Your task to perform on an android device: install app "Cash App" Image 0: 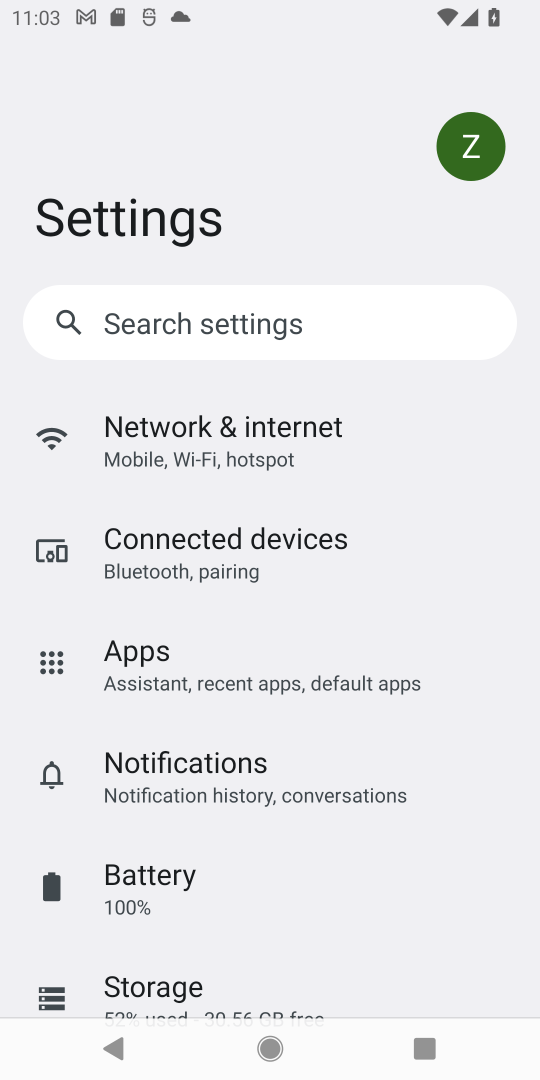
Step 0: press home button
Your task to perform on an android device: install app "Cash App" Image 1: 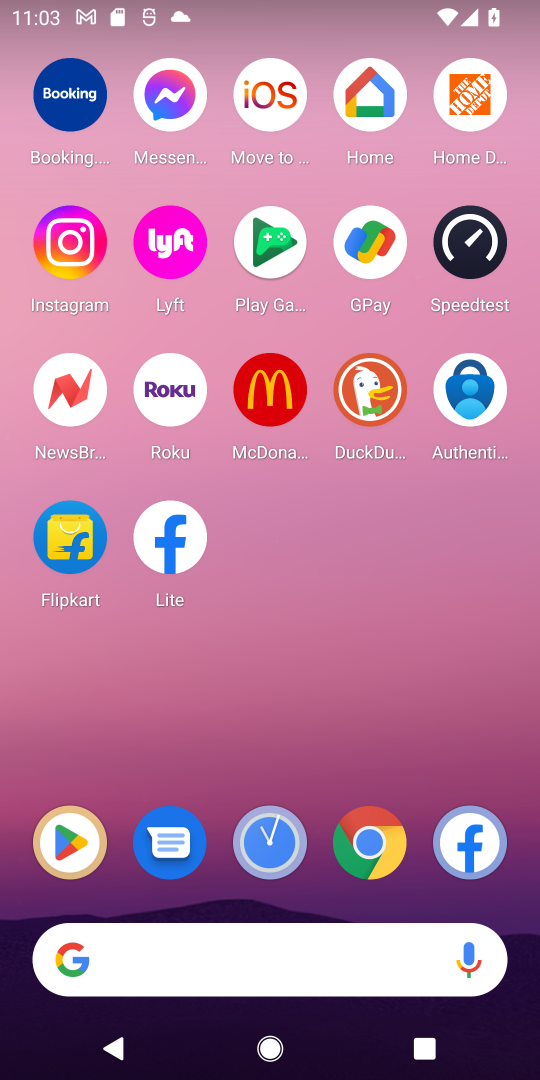
Step 1: click (56, 831)
Your task to perform on an android device: install app "Cash App" Image 2: 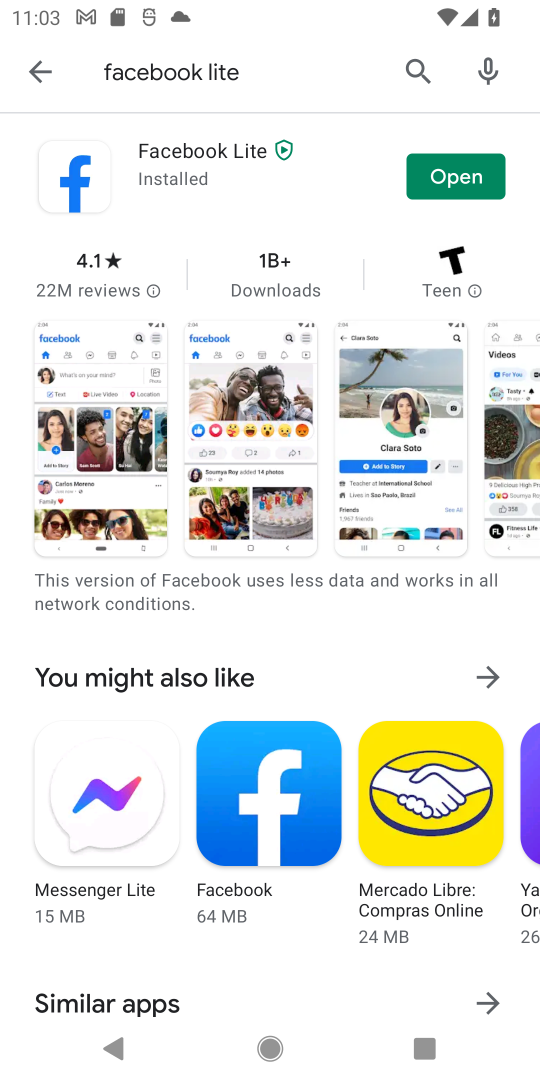
Step 2: click (411, 63)
Your task to perform on an android device: install app "Cash App" Image 3: 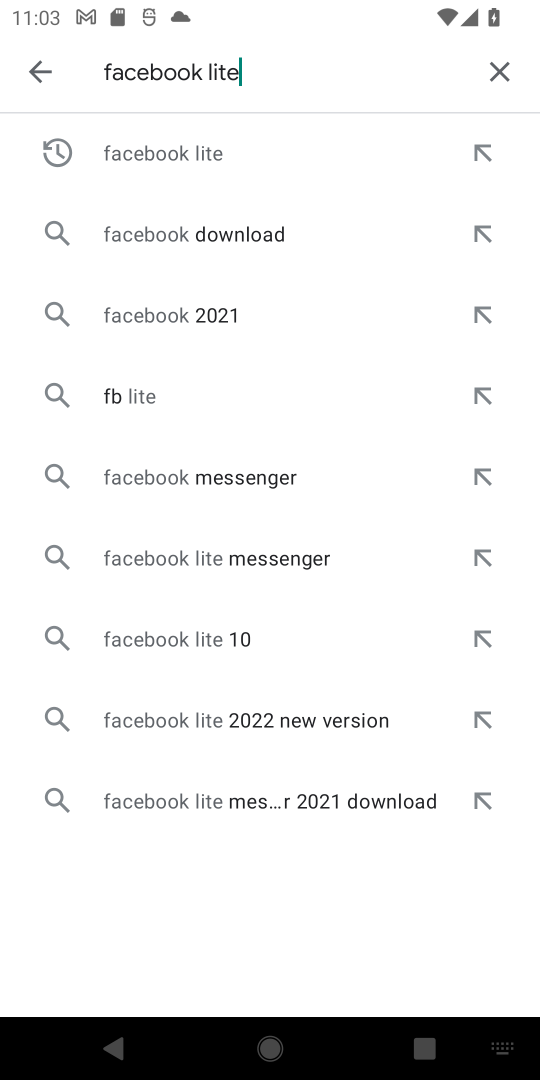
Step 3: click (519, 80)
Your task to perform on an android device: install app "Cash App" Image 4: 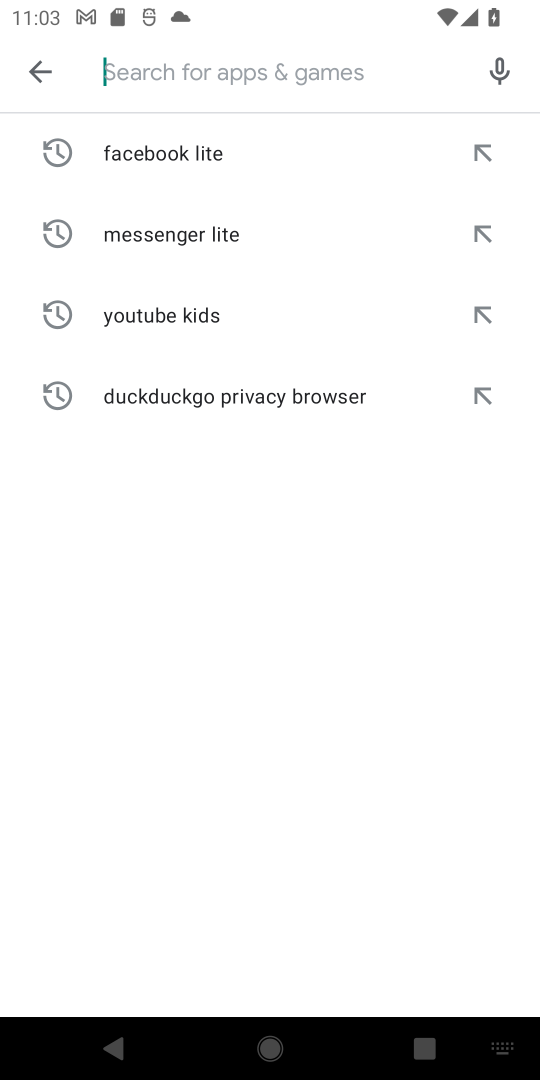
Step 4: click (194, 78)
Your task to perform on an android device: install app "Cash App" Image 5: 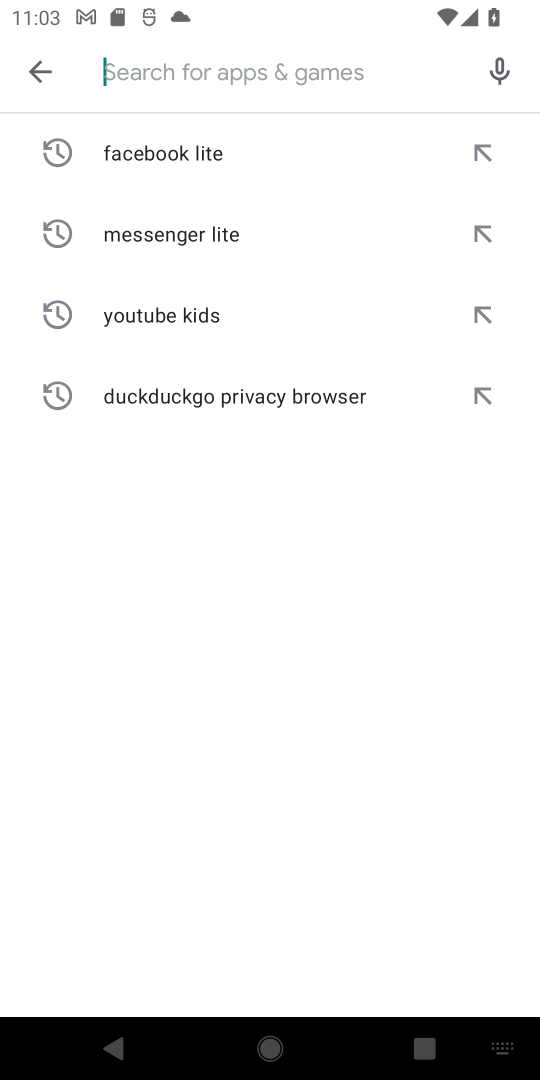
Step 5: type "Cash App"
Your task to perform on an android device: install app "Cash App" Image 6: 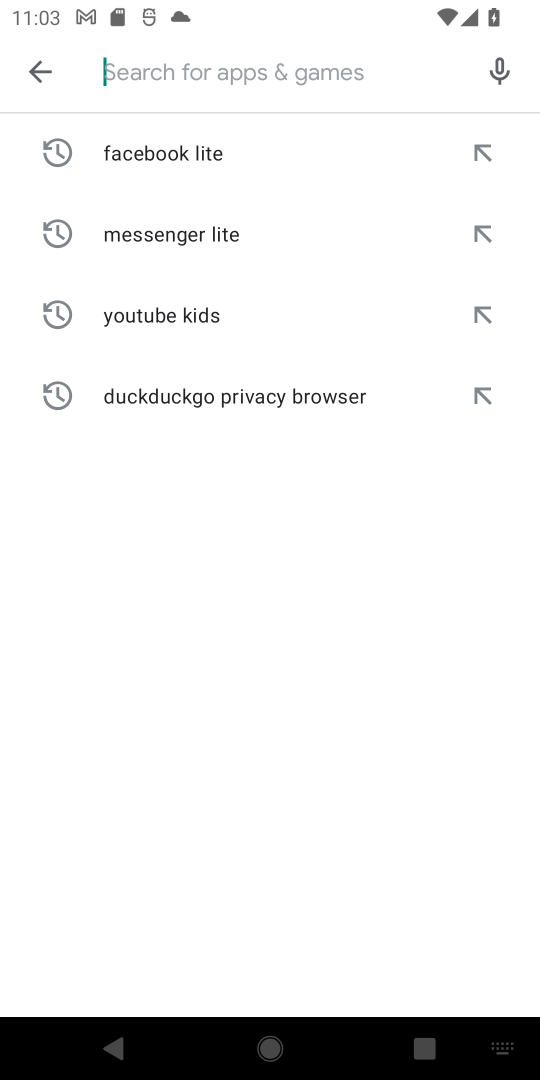
Step 6: click (297, 651)
Your task to perform on an android device: install app "Cash App" Image 7: 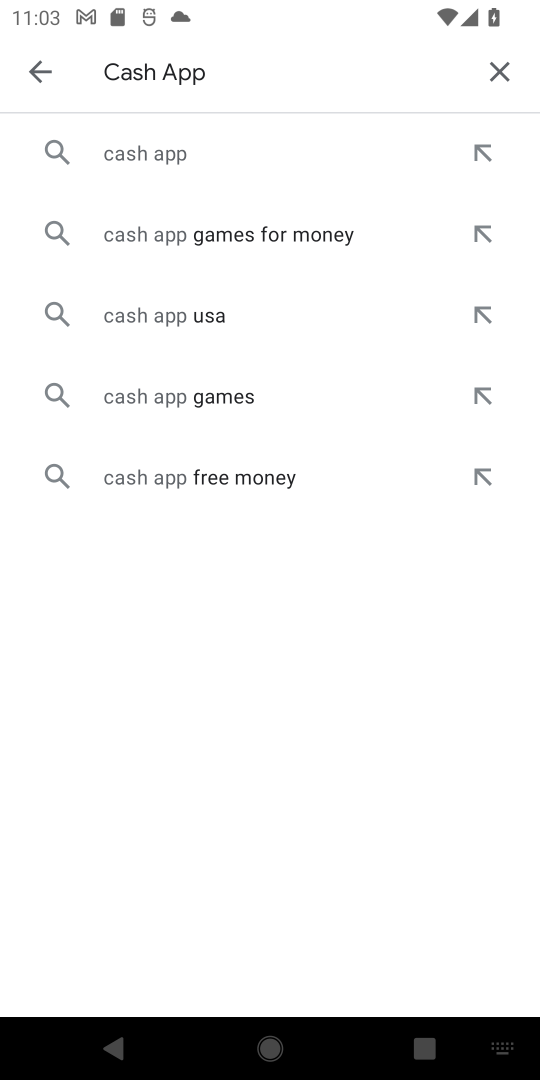
Step 7: click (175, 164)
Your task to perform on an android device: install app "Cash App" Image 8: 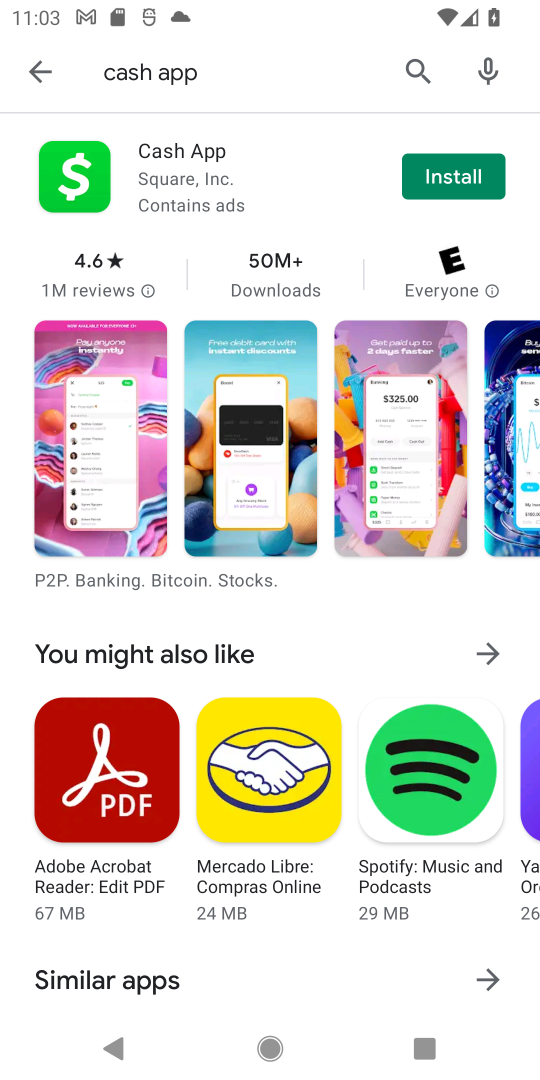
Step 8: click (434, 170)
Your task to perform on an android device: install app "Cash App" Image 9: 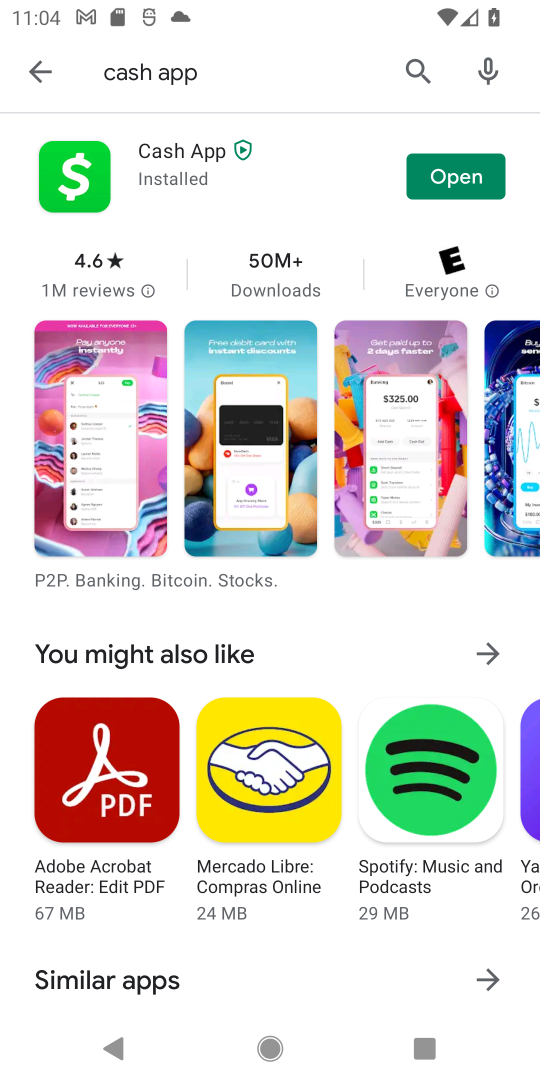
Step 9: task complete